Your task to perform on an android device: turn off picture-in-picture Image 0: 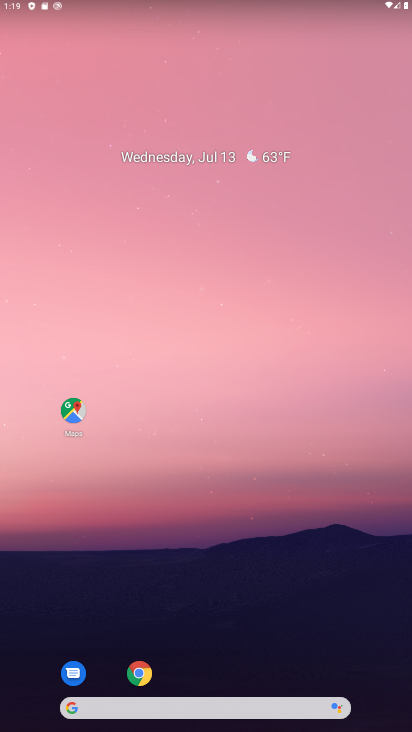
Step 0: drag from (322, 551) to (322, 264)
Your task to perform on an android device: turn off picture-in-picture Image 1: 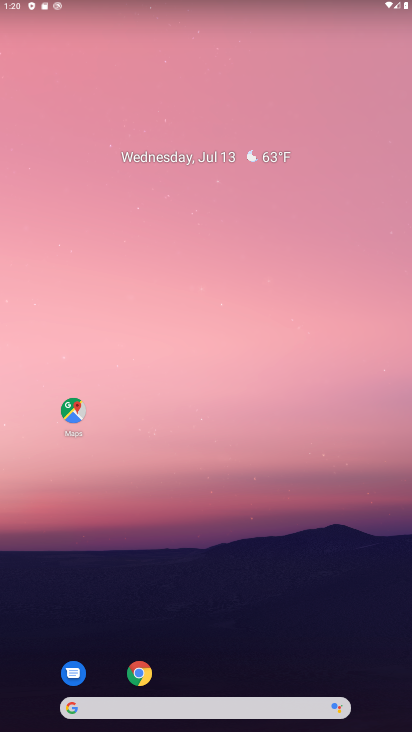
Step 1: drag from (344, 649) to (242, 97)
Your task to perform on an android device: turn off picture-in-picture Image 2: 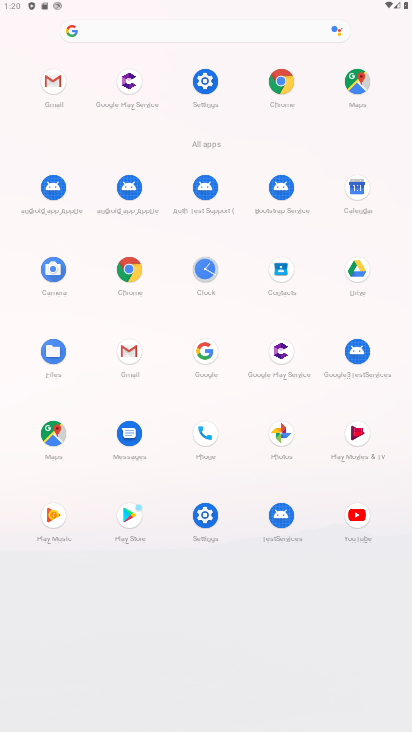
Step 2: click (131, 267)
Your task to perform on an android device: turn off picture-in-picture Image 3: 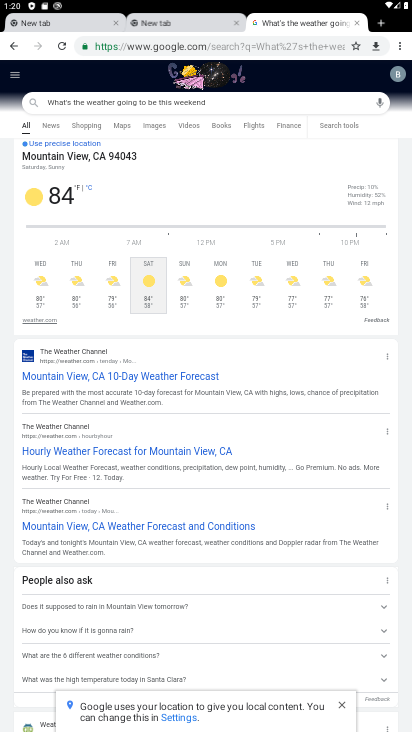
Step 3: click (402, 51)
Your task to perform on an android device: turn off picture-in-picture Image 4: 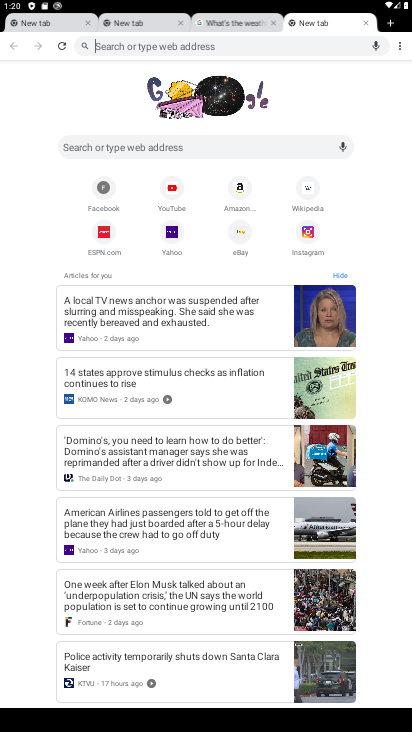
Step 4: click (399, 47)
Your task to perform on an android device: turn off picture-in-picture Image 5: 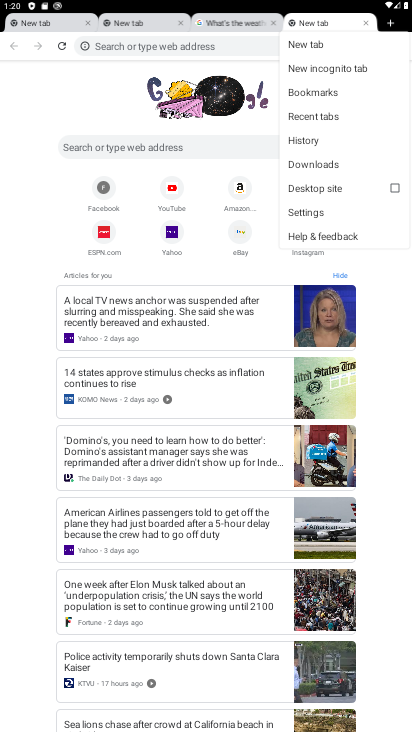
Step 5: click (306, 212)
Your task to perform on an android device: turn off picture-in-picture Image 6: 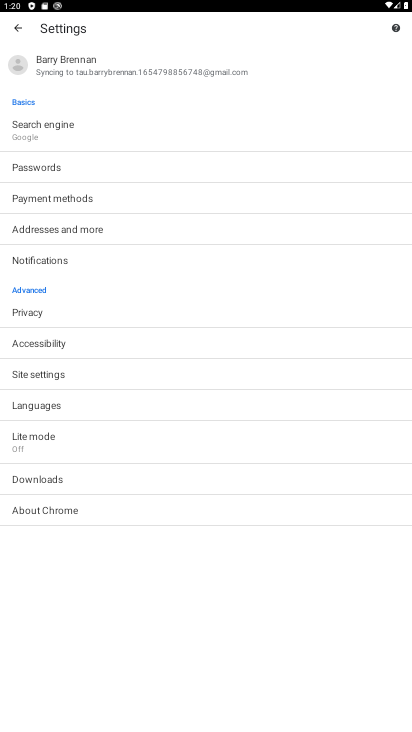
Step 6: click (59, 371)
Your task to perform on an android device: turn off picture-in-picture Image 7: 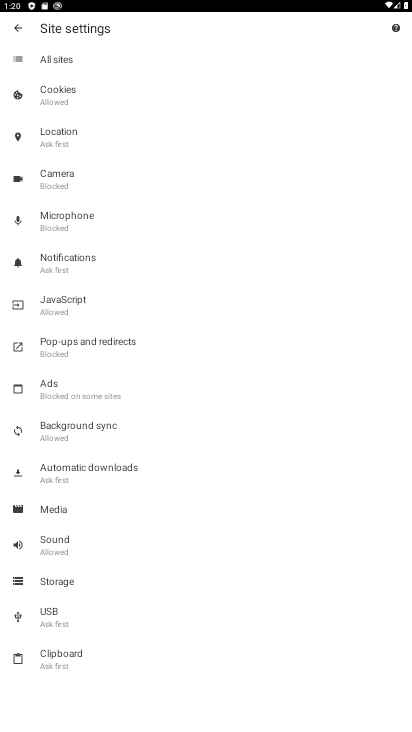
Step 7: click (95, 337)
Your task to perform on an android device: turn off picture-in-picture Image 8: 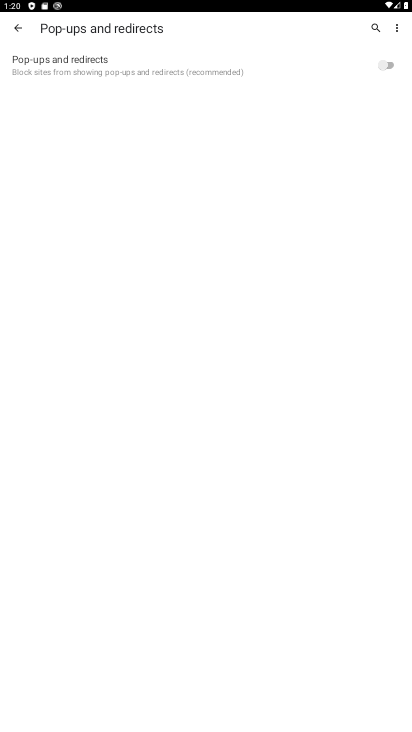
Step 8: click (392, 58)
Your task to perform on an android device: turn off picture-in-picture Image 9: 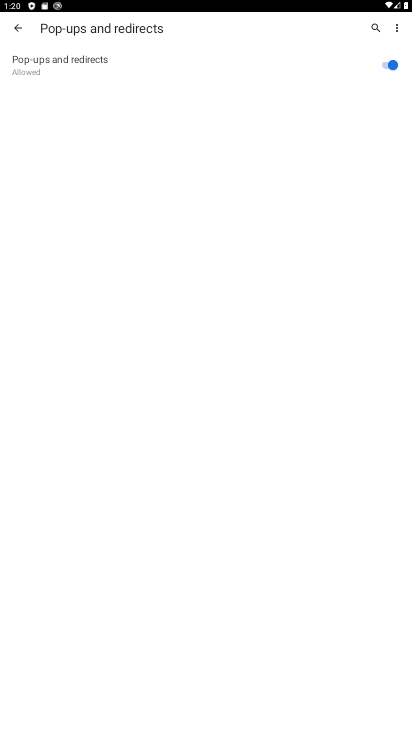
Step 9: click (392, 58)
Your task to perform on an android device: turn off picture-in-picture Image 10: 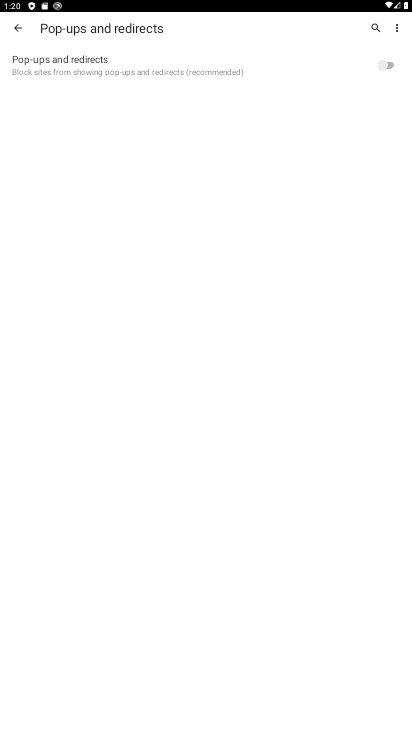
Step 10: task complete